Your task to perform on an android device: delete location history Image 0: 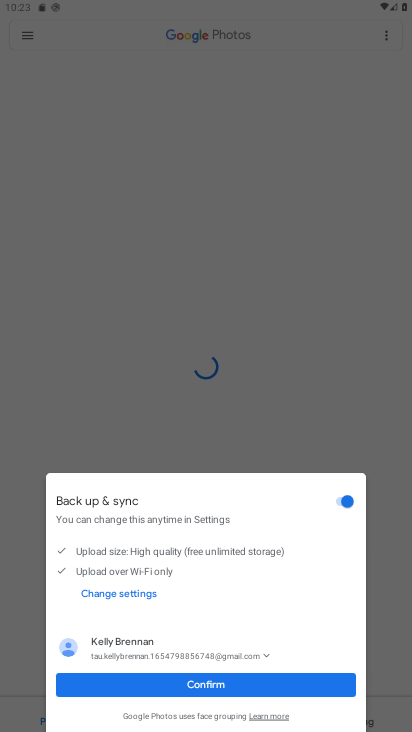
Step 0: press home button
Your task to perform on an android device: delete location history Image 1: 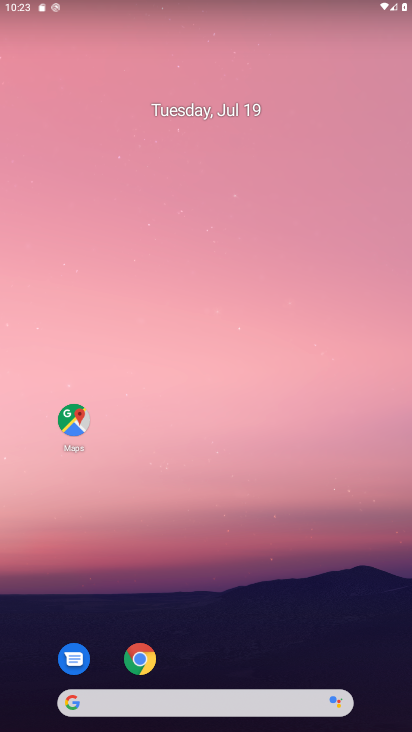
Step 1: drag from (190, 647) to (308, 95)
Your task to perform on an android device: delete location history Image 2: 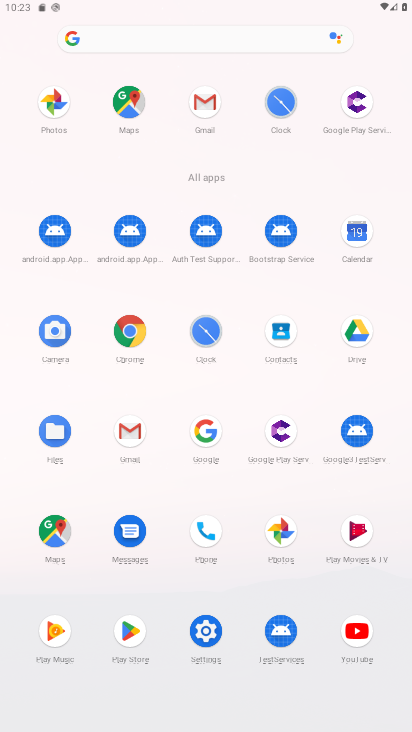
Step 2: click (205, 634)
Your task to perform on an android device: delete location history Image 3: 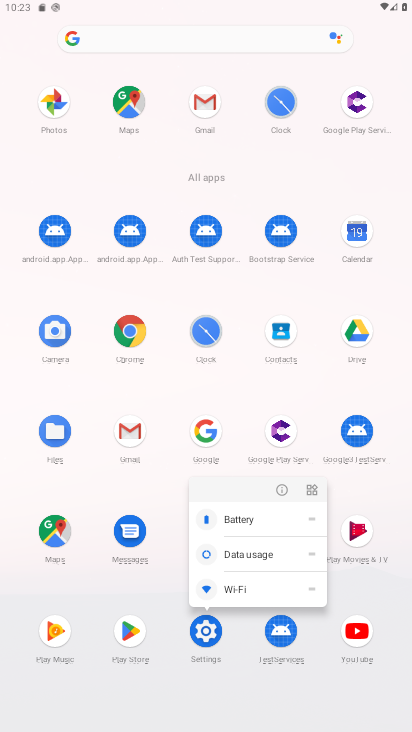
Step 3: click (284, 481)
Your task to perform on an android device: delete location history Image 4: 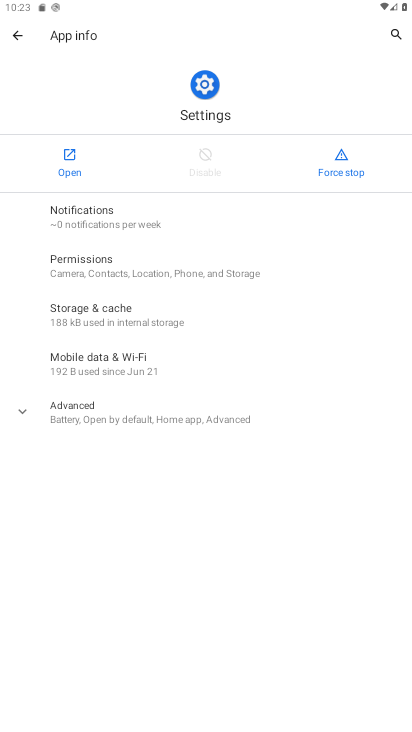
Step 4: click (63, 154)
Your task to perform on an android device: delete location history Image 5: 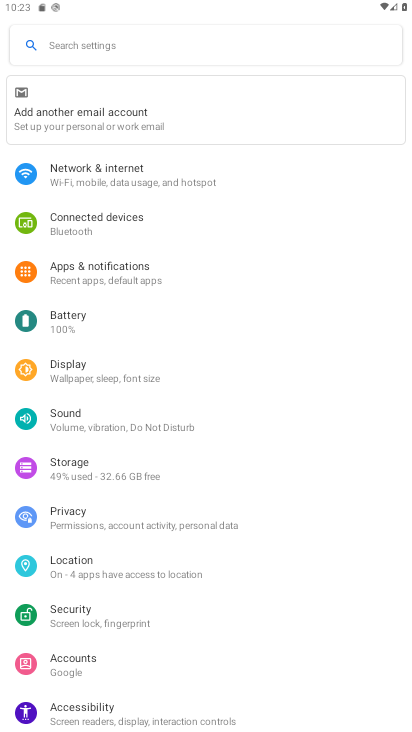
Step 5: click (85, 560)
Your task to perform on an android device: delete location history Image 6: 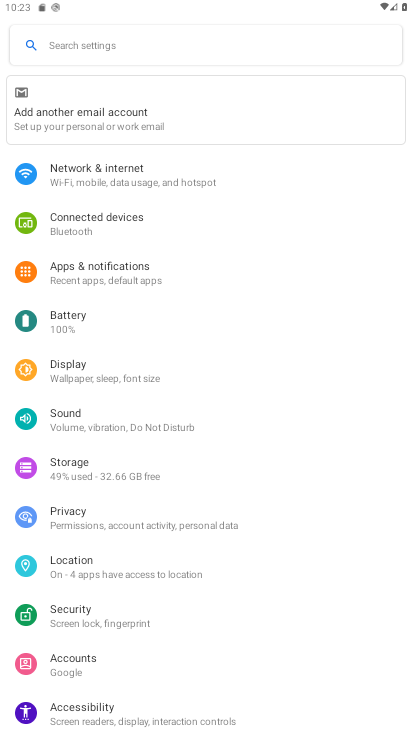
Step 6: click (85, 560)
Your task to perform on an android device: delete location history Image 7: 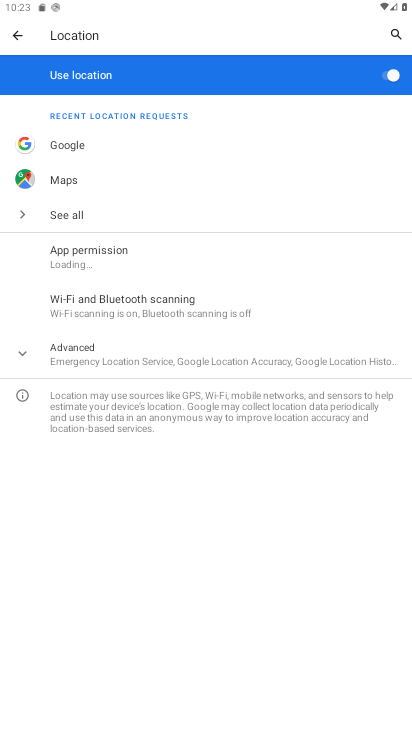
Step 7: click (77, 343)
Your task to perform on an android device: delete location history Image 8: 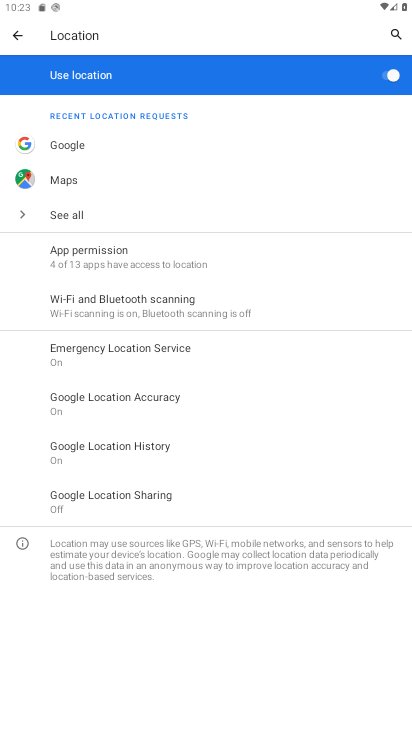
Step 8: click (138, 444)
Your task to perform on an android device: delete location history Image 9: 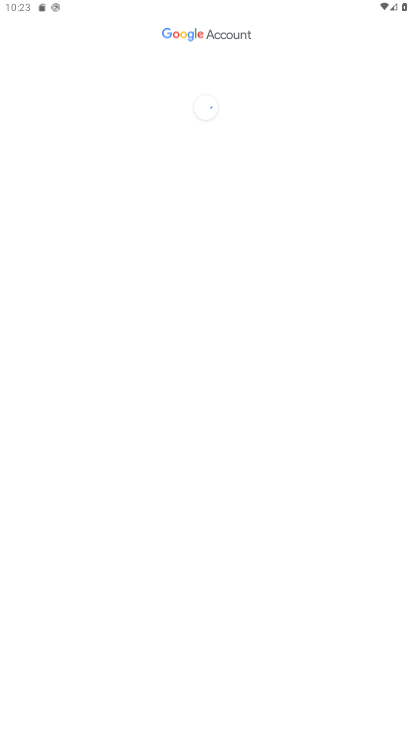
Step 9: drag from (260, 470) to (267, 278)
Your task to perform on an android device: delete location history Image 10: 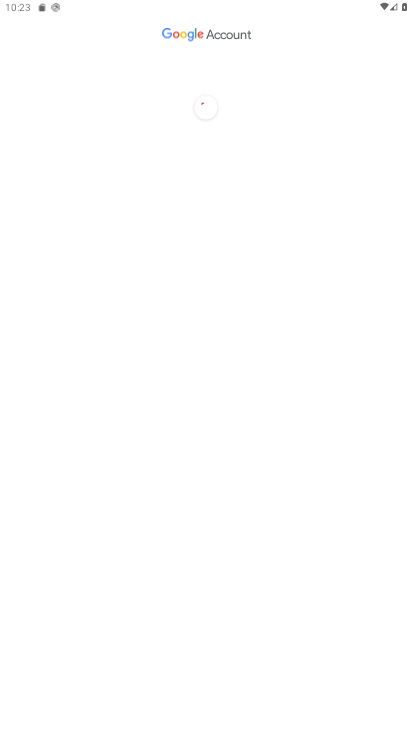
Step 10: drag from (262, 553) to (278, 267)
Your task to perform on an android device: delete location history Image 11: 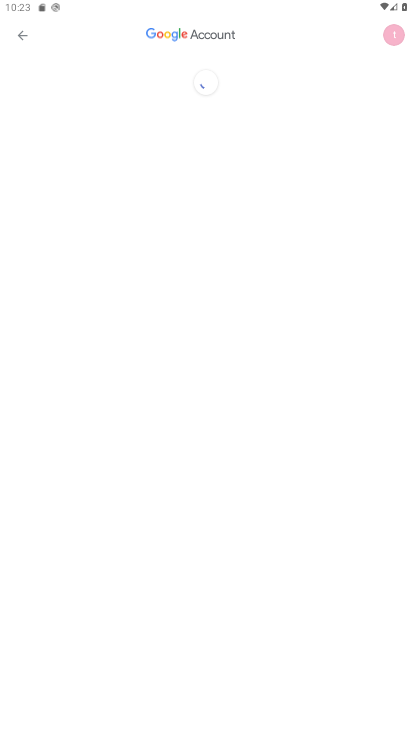
Step 11: drag from (200, 544) to (280, 199)
Your task to perform on an android device: delete location history Image 12: 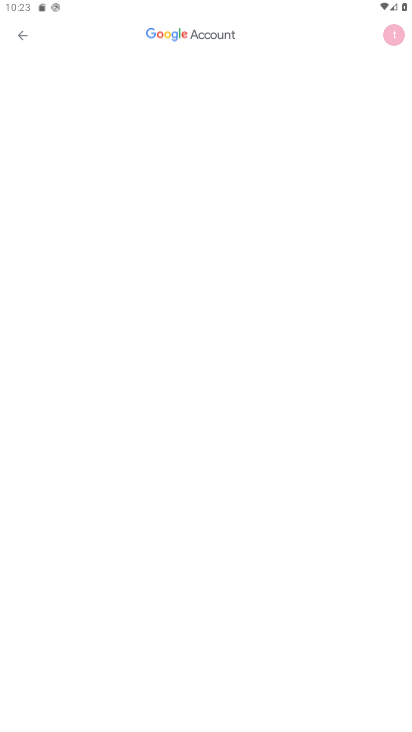
Step 12: drag from (357, 662) to (368, 721)
Your task to perform on an android device: delete location history Image 13: 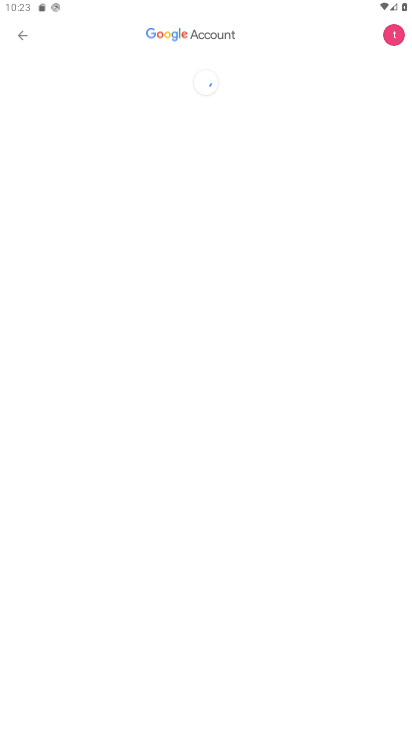
Step 13: drag from (256, 438) to (296, 224)
Your task to perform on an android device: delete location history Image 14: 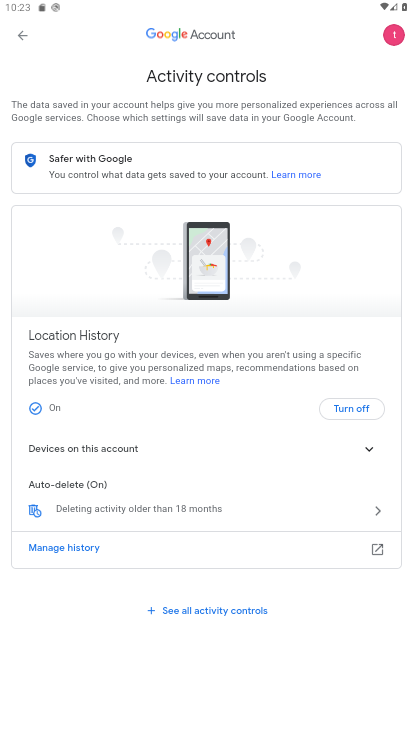
Step 14: drag from (289, 233) to (309, 702)
Your task to perform on an android device: delete location history Image 15: 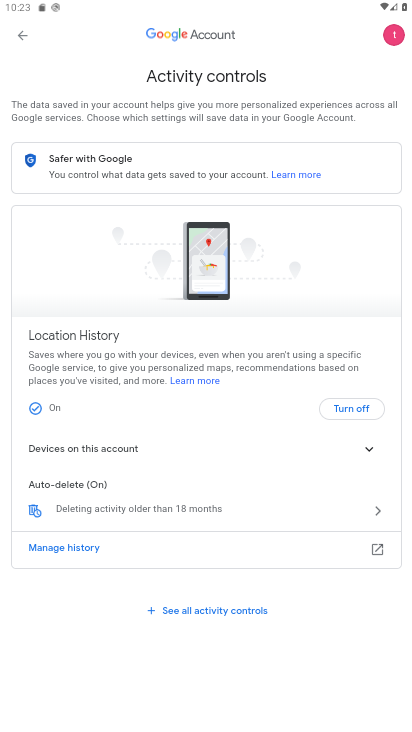
Step 15: drag from (113, 492) to (190, 253)
Your task to perform on an android device: delete location history Image 16: 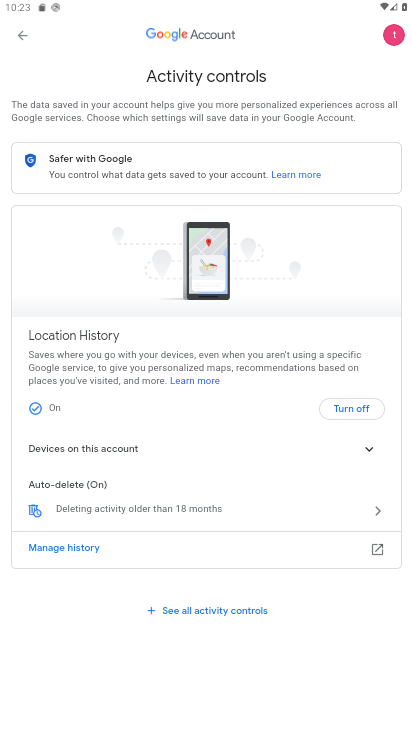
Step 16: click (36, 510)
Your task to perform on an android device: delete location history Image 17: 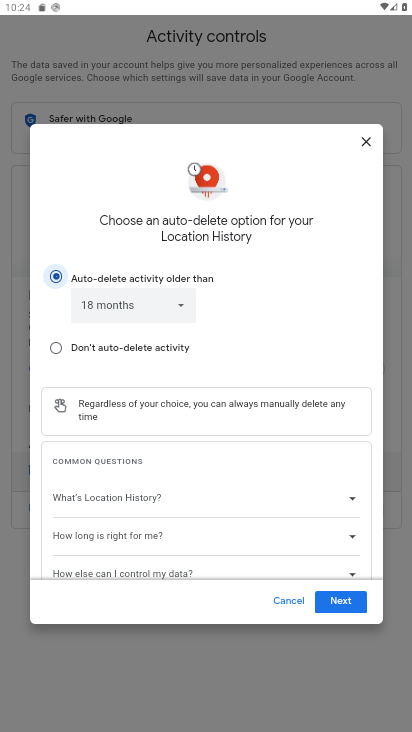
Step 17: click (337, 598)
Your task to perform on an android device: delete location history Image 18: 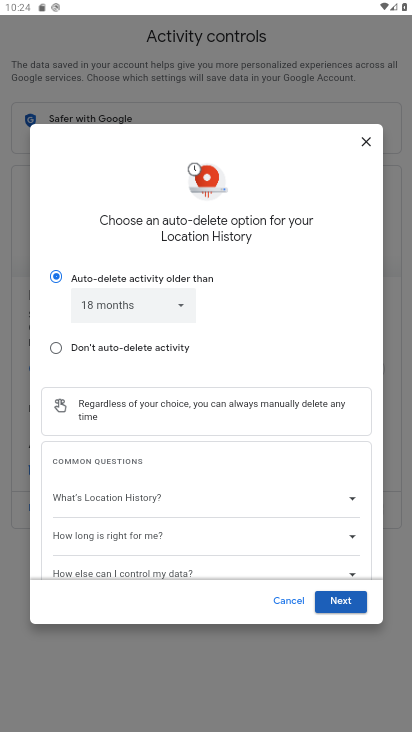
Step 18: click (351, 593)
Your task to perform on an android device: delete location history Image 19: 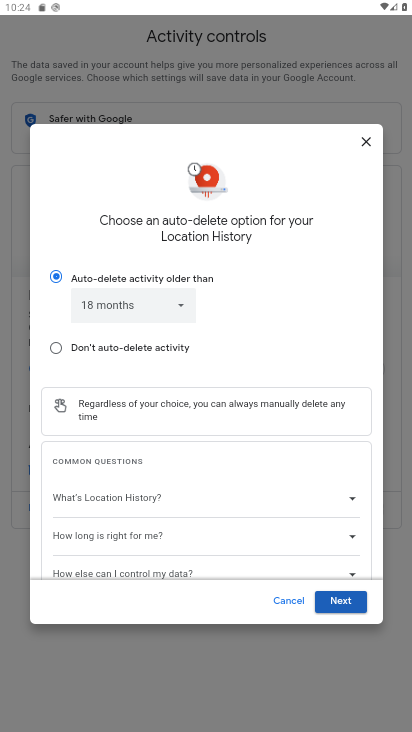
Step 19: click (350, 603)
Your task to perform on an android device: delete location history Image 20: 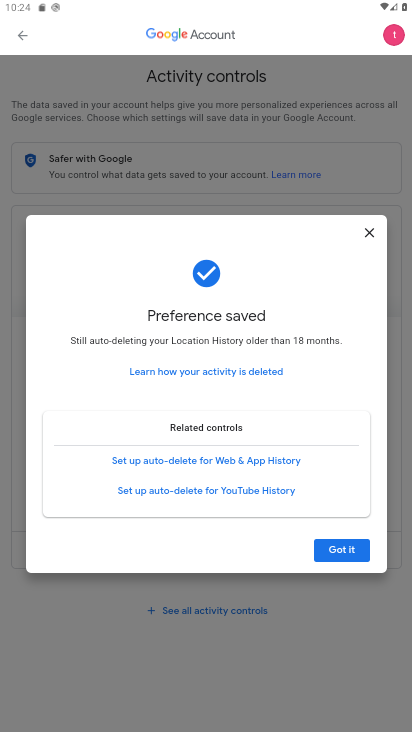
Step 20: click (349, 604)
Your task to perform on an android device: delete location history Image 21: 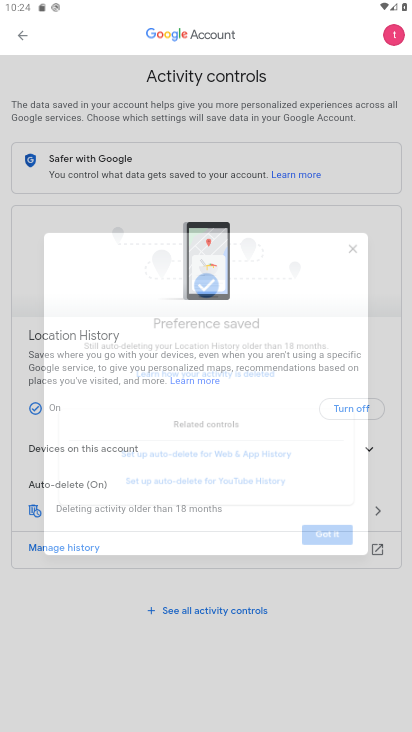
Step 21: click (346, 564)
Your task to perform on an android device: delete location history Image 22: 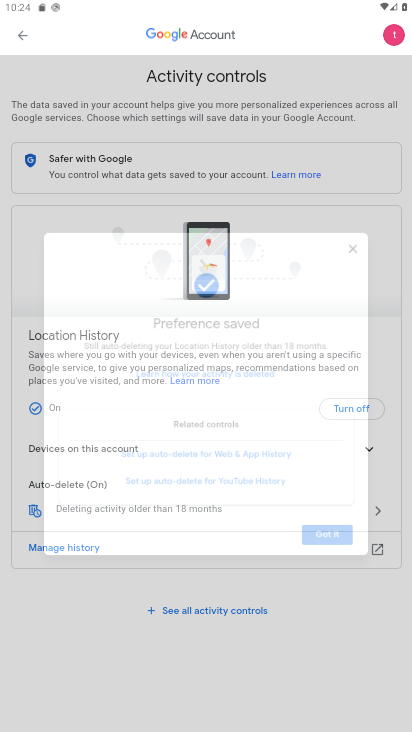
Step 22: click (344, 560)
Your task to perform on an android device: delete location history Image 23: 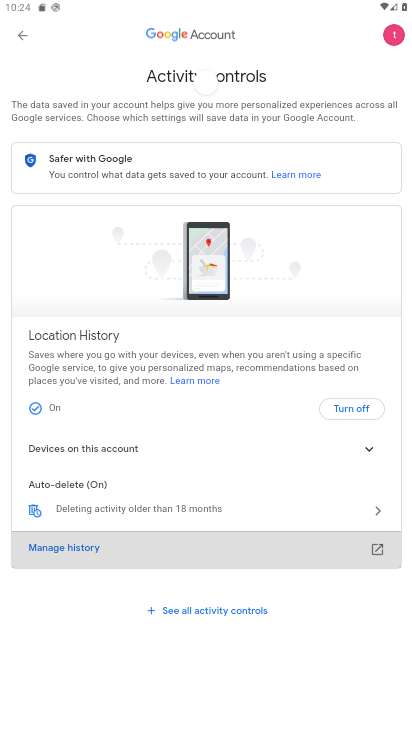
Step 23: task complete